Your task to perform on an android device: Open settings on Google Maps Image 0: 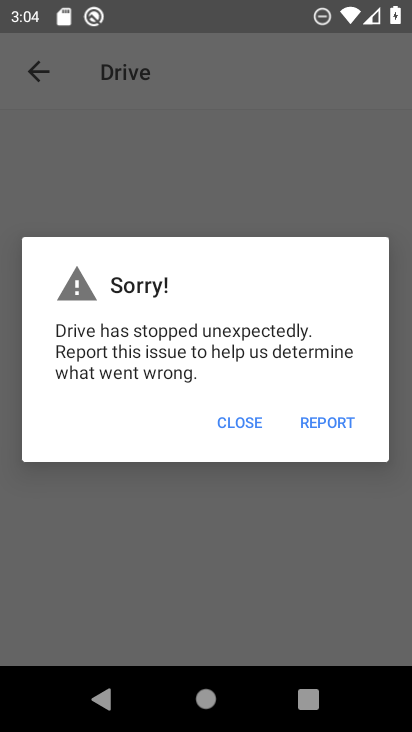
Step 0: press home button
Your task to perform on an android device: Open settings on Google Maps Image 1: 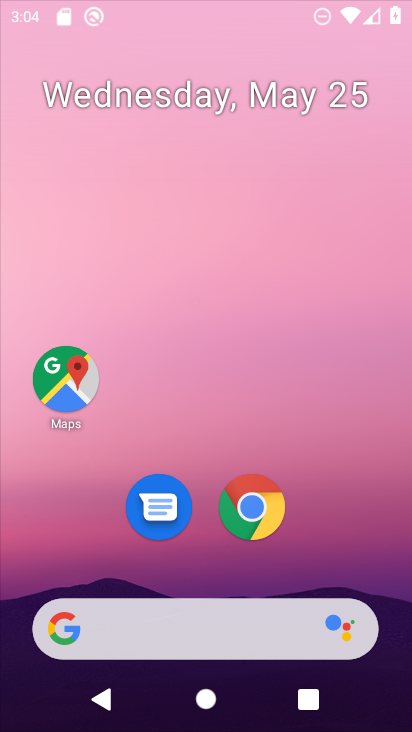
Step 1: drag from (241, 655) to (248, 143)
Your task to perform on an android device: Open settings on Google Maps Image 2: 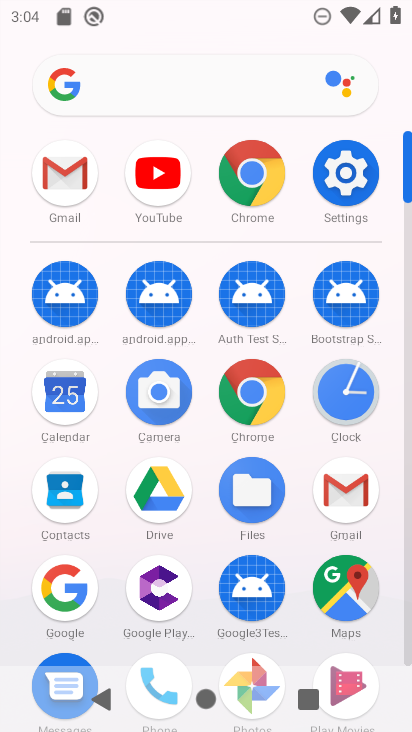
Step 2: click (359, 595)
Your task to perform on an android device: Open settings on Google Maps Image 3: 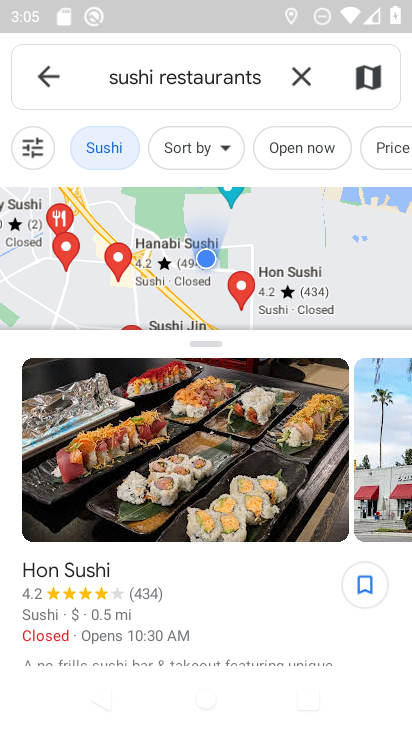
Step 3: task complete